Your task to perform on an android device: Search for rayovac triple a on bestbuy.com, select the first entry, and add it to the cart. Image 0: 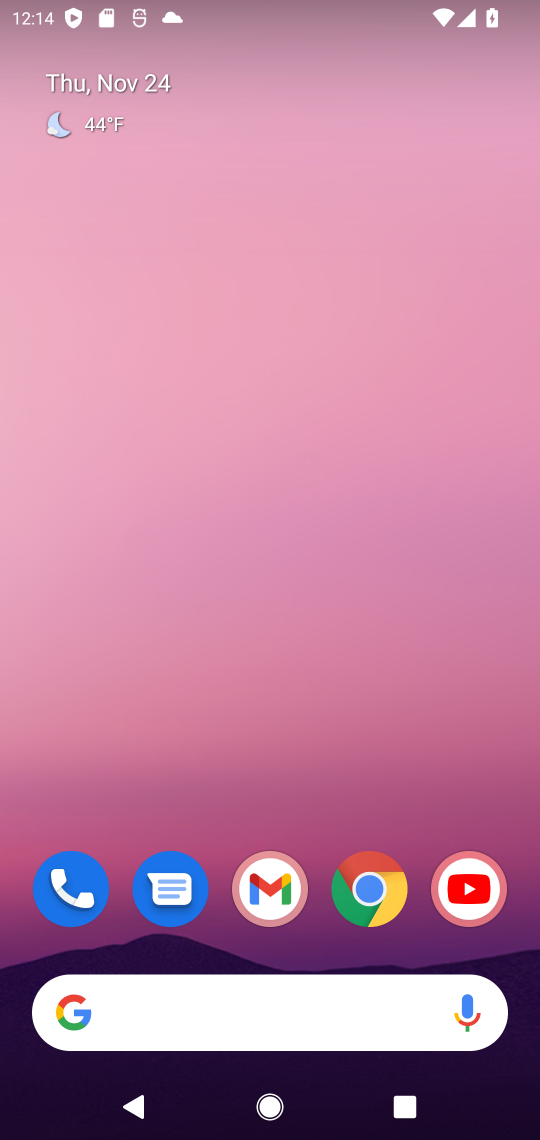
Step 0: click (370, 893)
Your task to perform on an android device: Search for rayovac triple a on bestbuy.com, select the first entry, and add it to the cart. Image 1: 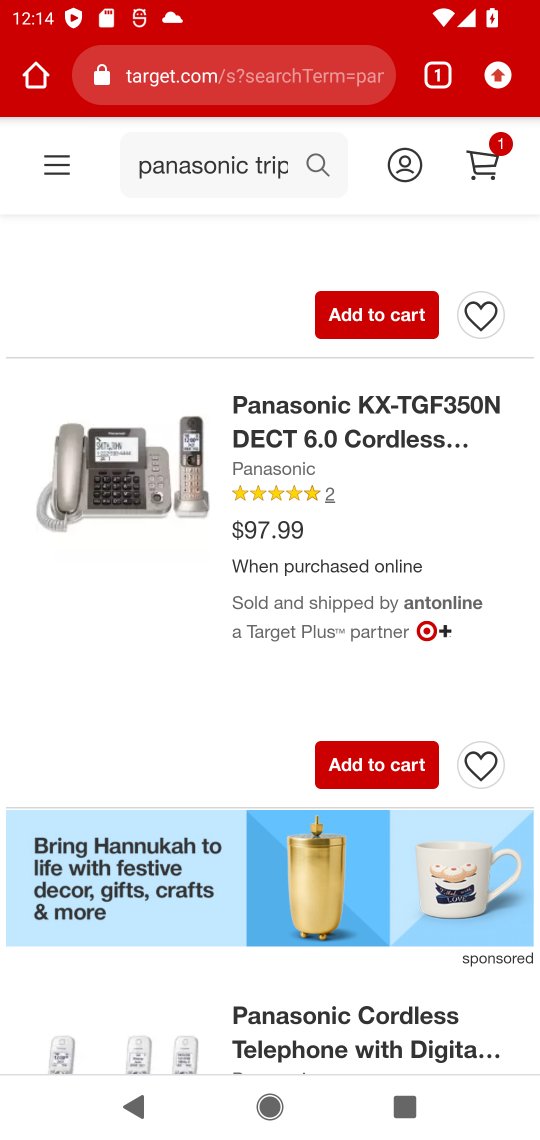
Step 1: click (207, 77)
Your task to perform on an android device: Search for rayovac triple a on bestbuy.com, select the first entry, and add it to the cart. Image 2: 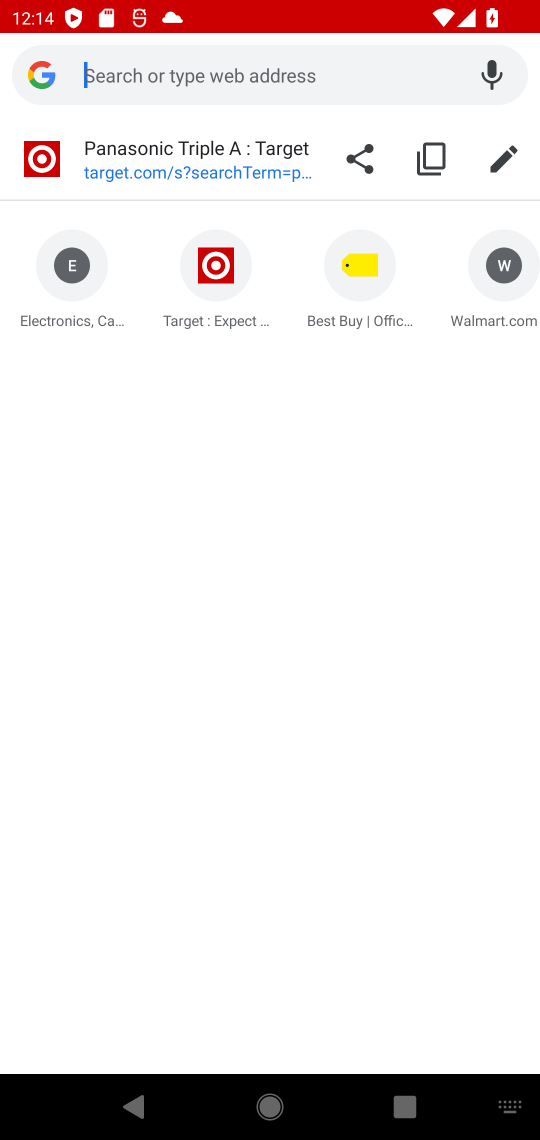
Step 2: click (348, 291)
Your task to perform on an android device: Search for rayovac triple a on bestbuy.com, select the first entry, and add it to the cart. Image 3: 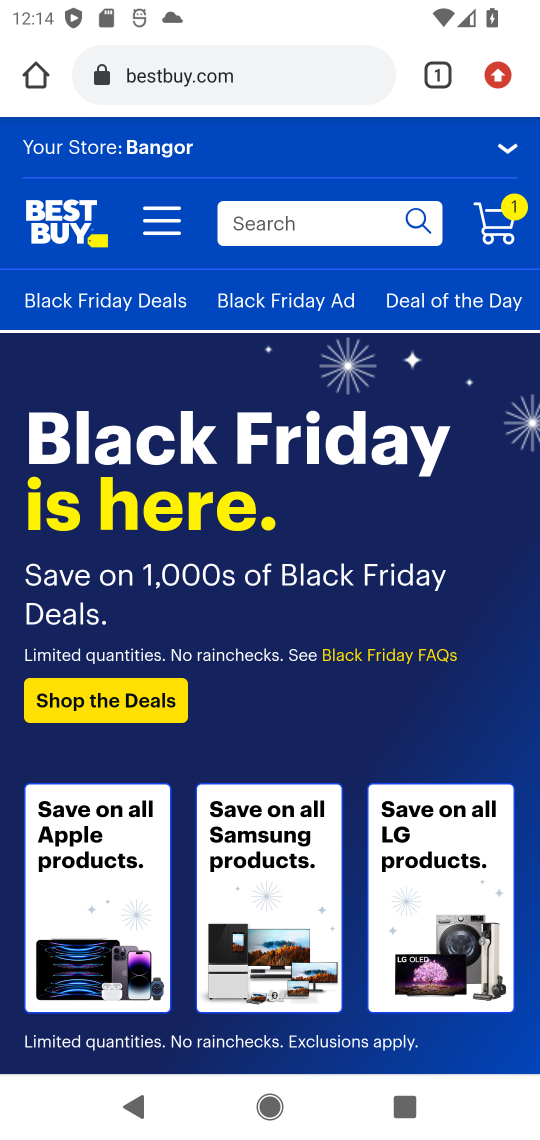
Step 3: click (268, 227)
Your task to perform on an android device: Search for rayovac triple a on bestbuy.com, select the first entry, and add it to the cart. Image 4: 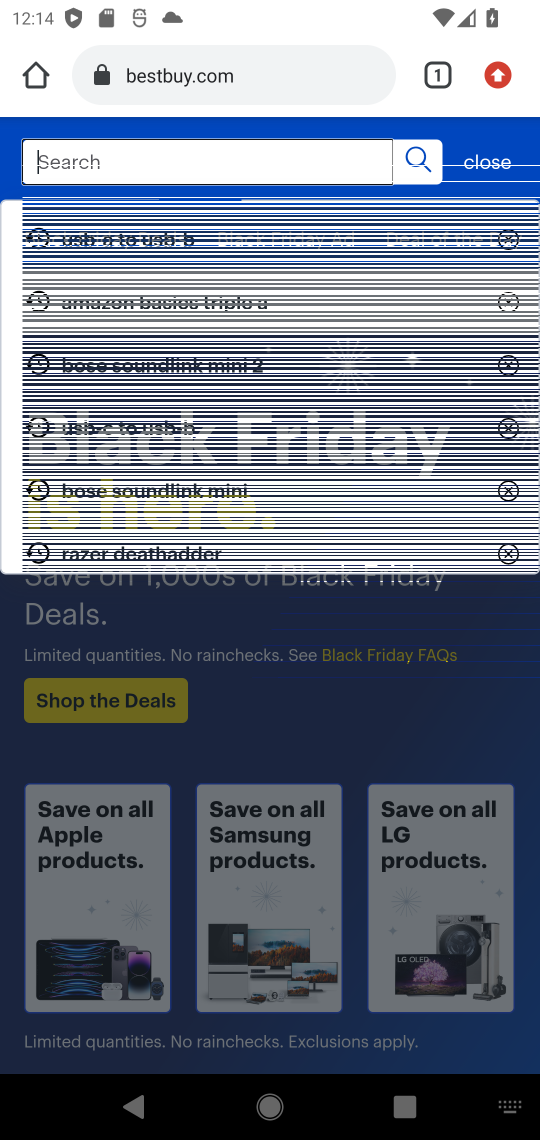
Step 4: type "rayovac triple a "
Your task to perform on an android device: Search for rayovac triple a on bestbuy.com, select the first entry, and add it to the cart. Image 5: 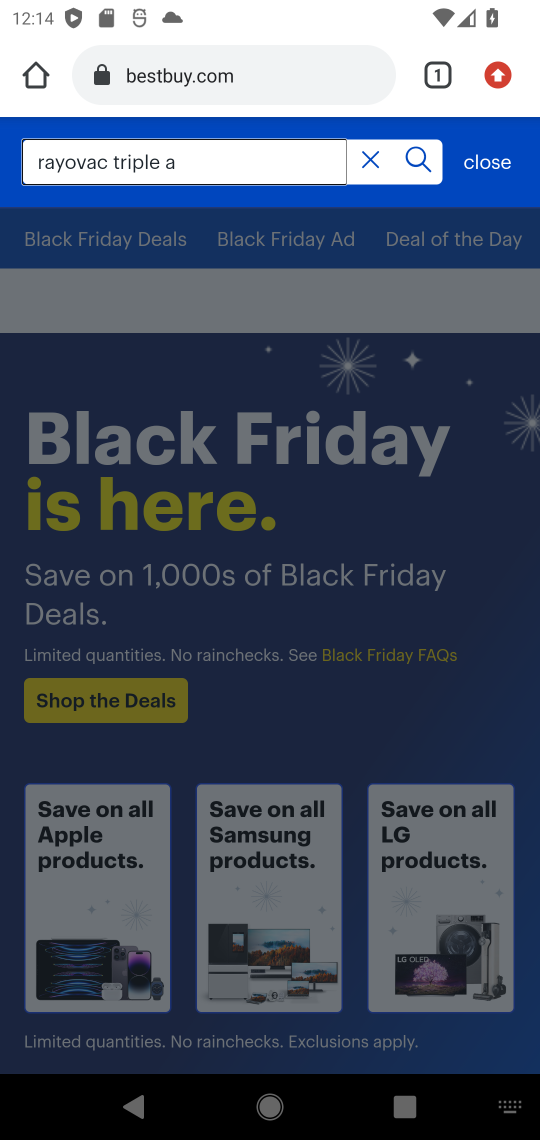
Step 5: click (417, 160)
Your task to perform on an android device: Search for rayovac triple a on bestbuy.com, select the first entry, and add it to the cart. Image 6: 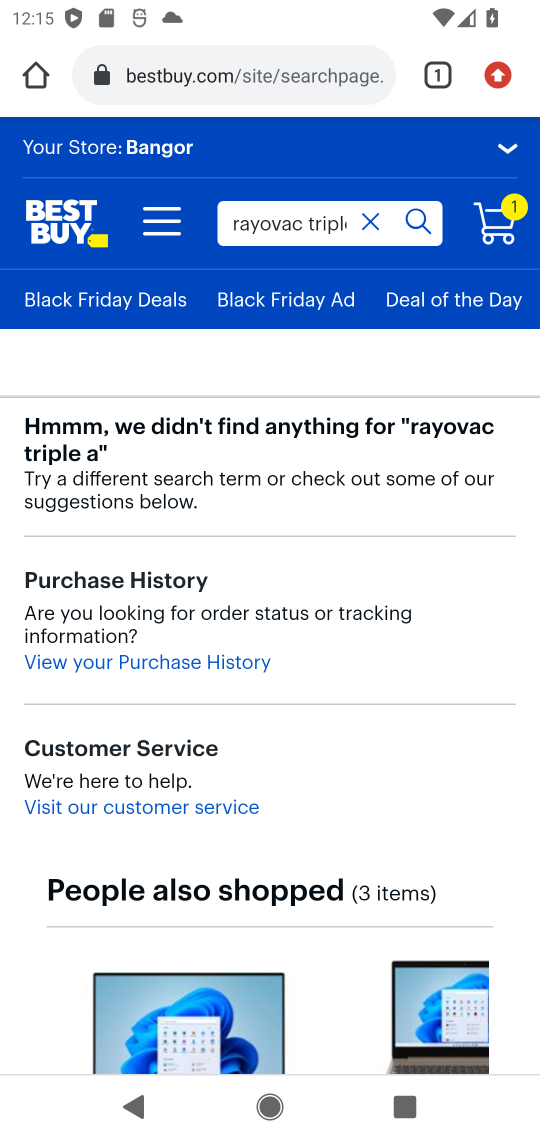
Step 6: task complete